Your task to perform on an android device: Go to Amazon Image 0: 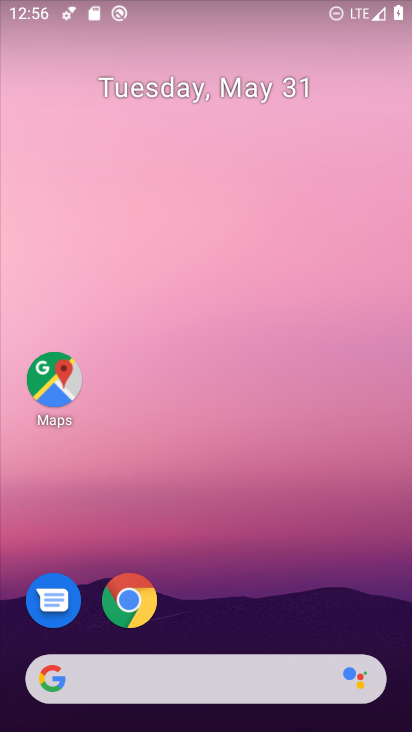
Step 0: click (125, 600)
Your task to perform on an android device: Go to Amazon Image 1: 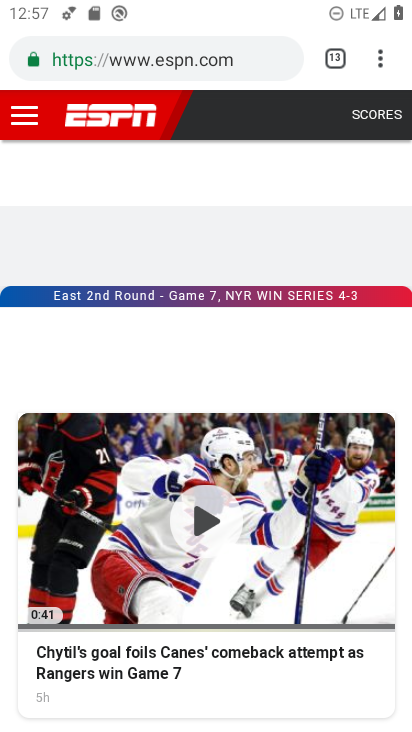
Step 1: click (382, 65)
Your task to perform on an android device: Go to Amazon Image 2: 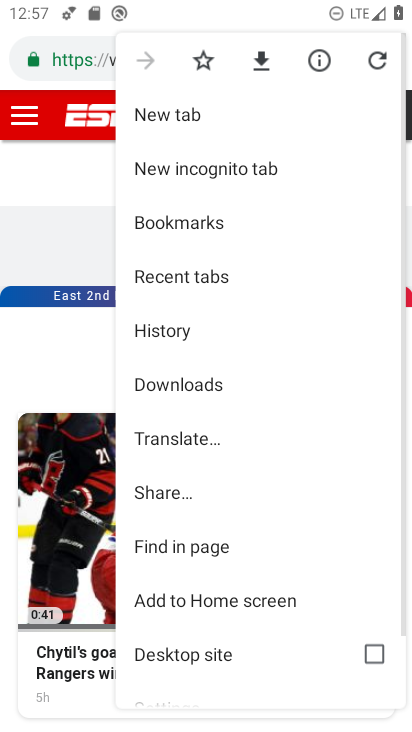
Step 2: click (173, 115)
Your task to perform on an android device: Go to Amazon Image 3: 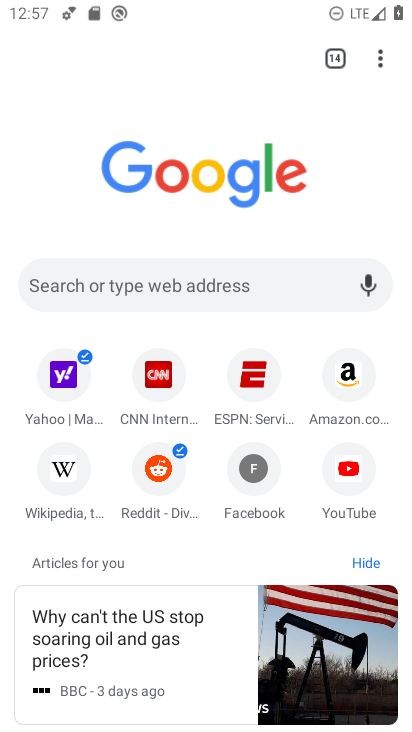
Step 3: click (352, 376)
Your task to perform on an android device: Go to Amazon Image 4: 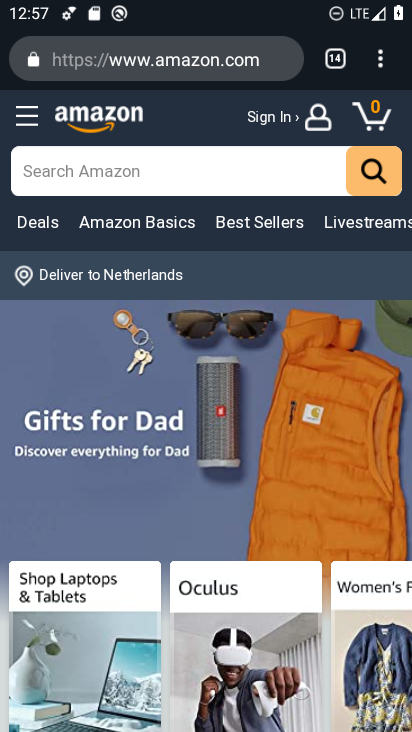
Step 4: task complete